Your task to perform on an android device: move a message to another label in the gmail app Image 0: 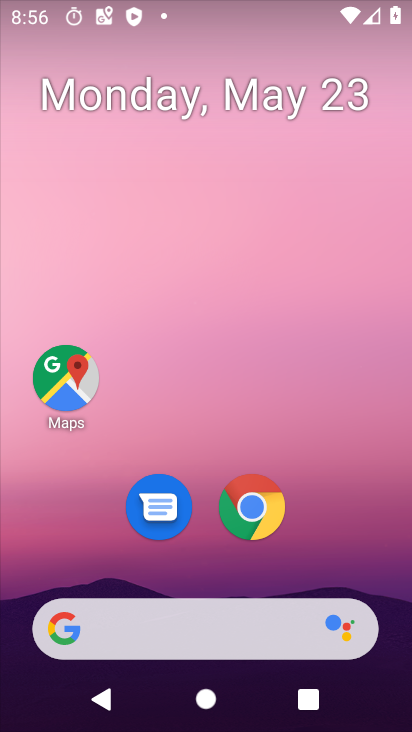
Step 0: drag from (348, 460) to (299, 71)
Your task to perform on an android device: move a message to another label in the gmail app Image 1: 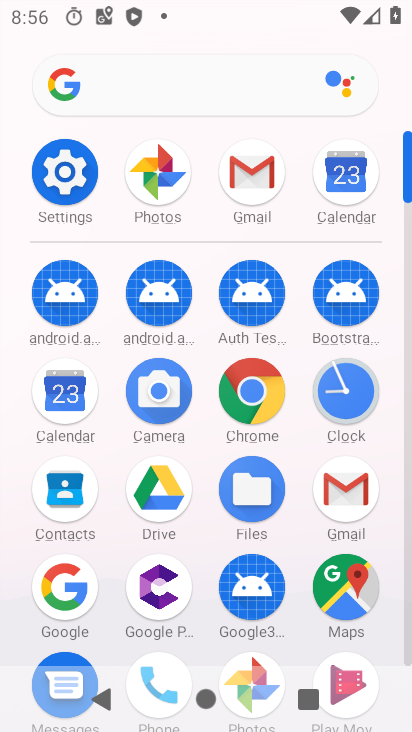
Step 1: click (254, 186)
Your task to perform on an android device: move a message to another label in the gmail app Image 2: 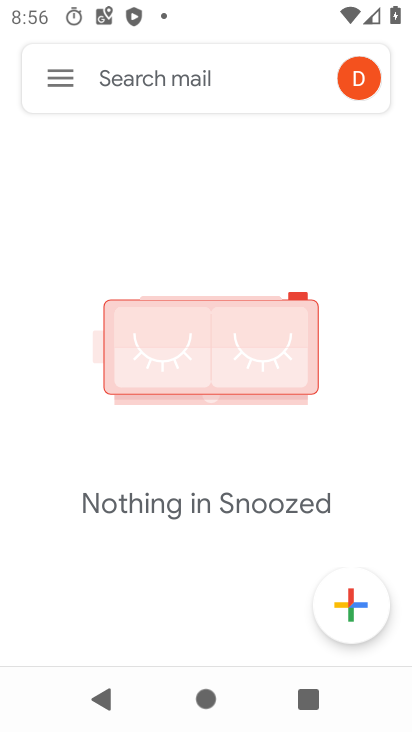
Step 2: click (53, 85)
Your task to perform on an android device: move a message to another label in the gmail app Image 3: 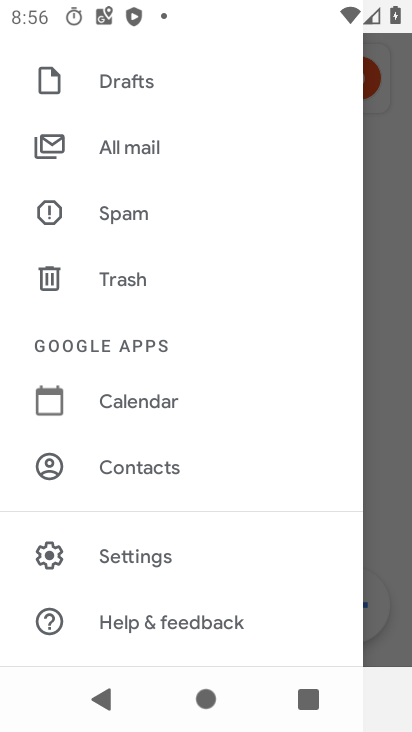
Step 3: click (125, 141)
Your task to perform on an android device: move a message to another label in the gmail app Image 4: 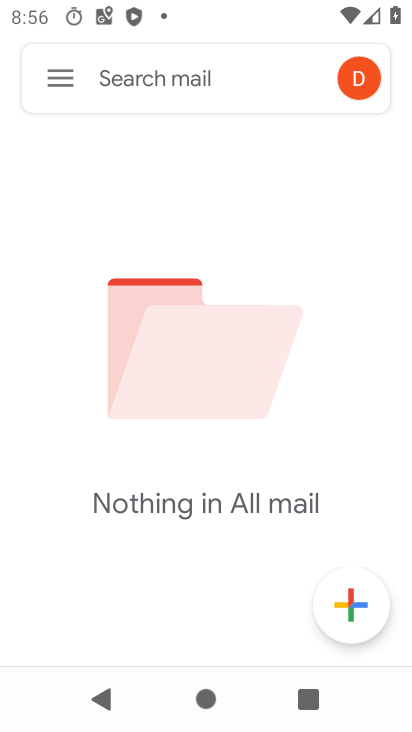
Step 4: task complete